Your task to perform on an android device: Go to ESPN.com Image 0: 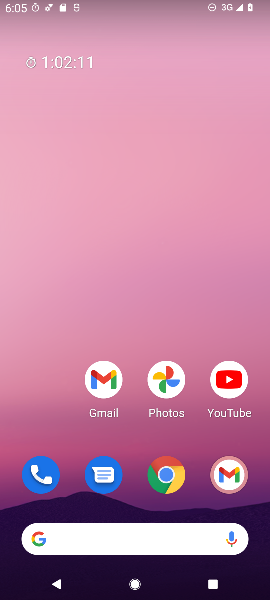
Step 0: press home button
Your task to perform on an android device: Go to ESPN.com Image 1: 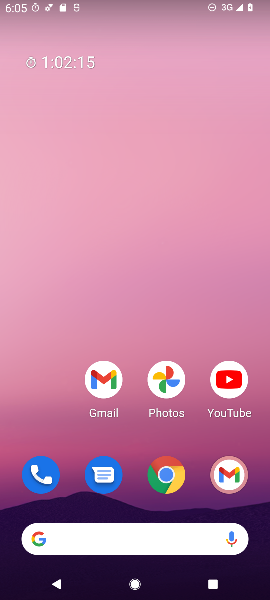
Step 1: drag from (57, 417) to (43, 147)
Your task to perform on an android device: Go to ESPN.com Image 2: 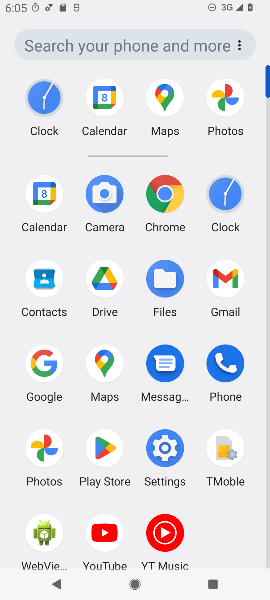
Step 2: click (166, 199)
Your task to perform on an android device: Go to ESPN.com Image 3: 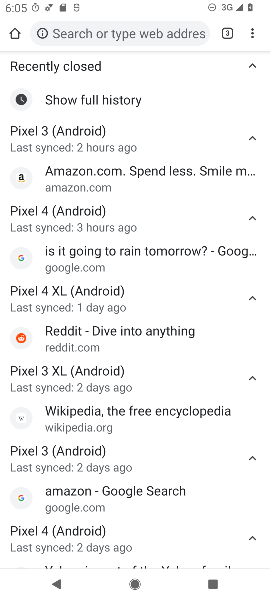
Step 3: click (160, 34)
Your task to perform on an android device: Go to ESPN.com Image 4: 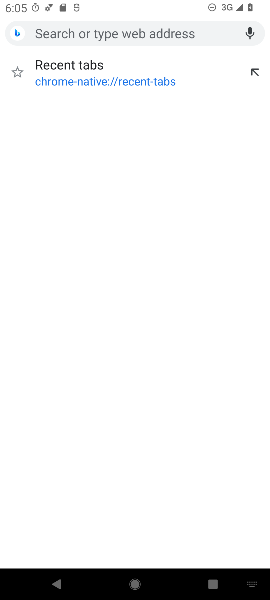
Step 4: type "espn.com"
Your task to perform on an android device: Go to ESPN.com Image 5: 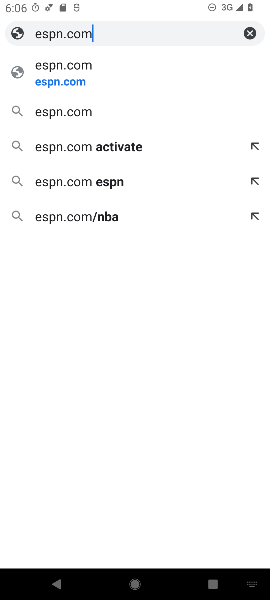
Step 5: click (145, 72)
Your task to perform on an android device: Go to ESPN.com Image 6: 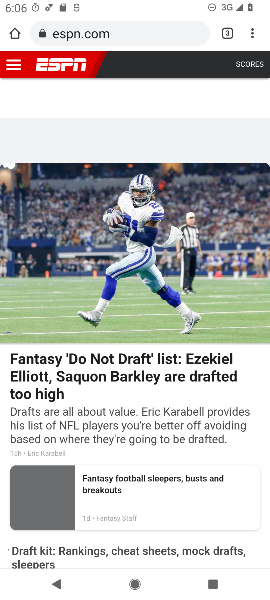
Step 6: task complete